Your task to perform on an android device: Open calendar and show me the third week of next month Image 0: 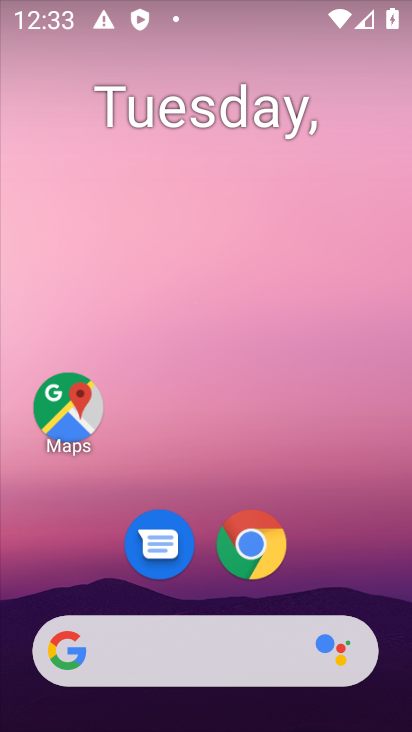
Step 0: click (206, 114)
Your task to perform on an android device: Open calendar and show me the third week of next month Image 1: 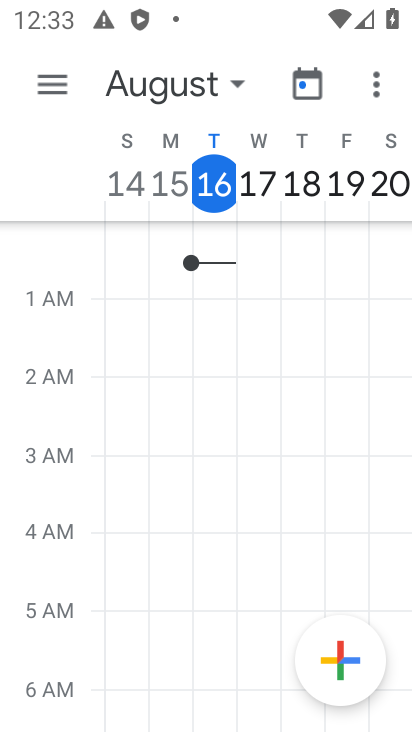
Step 1: click (215, 81)
Your task to perform on an android device: Open calendar and show me the third week of next month Image 2: 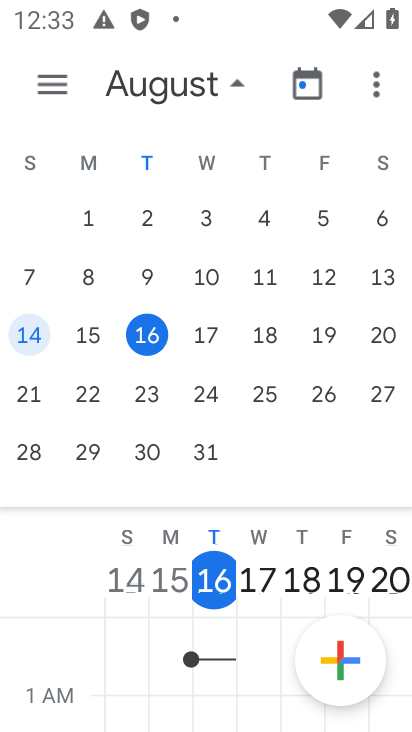
Step 2: drag from (336, 263) to (8, 283)
Your task to perform on an android device: Open calendar and show me the third week of next month Image 3: 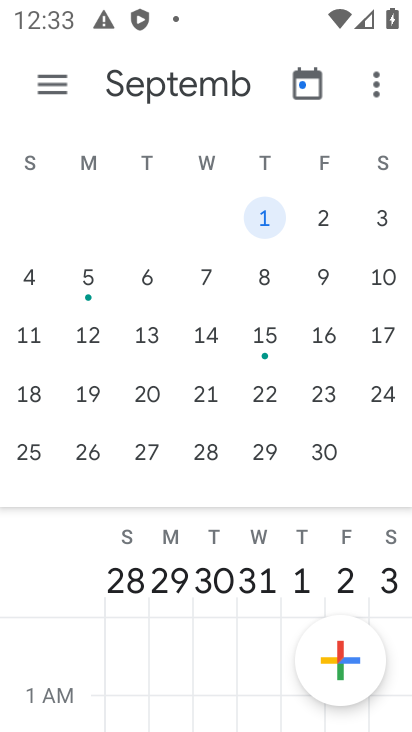
Step 3: click (137, 383)
Your task to perform on an android device: Open calendar and show me the third week of next month Image 4: 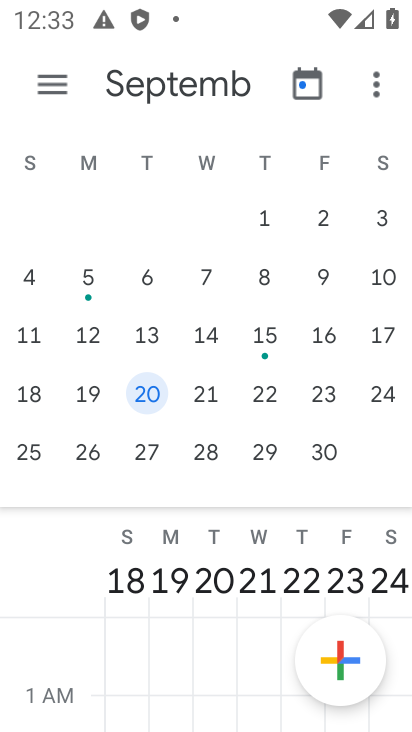
Step 4: task complete